Your task to perform on an android device: Open internet settings Image 0: 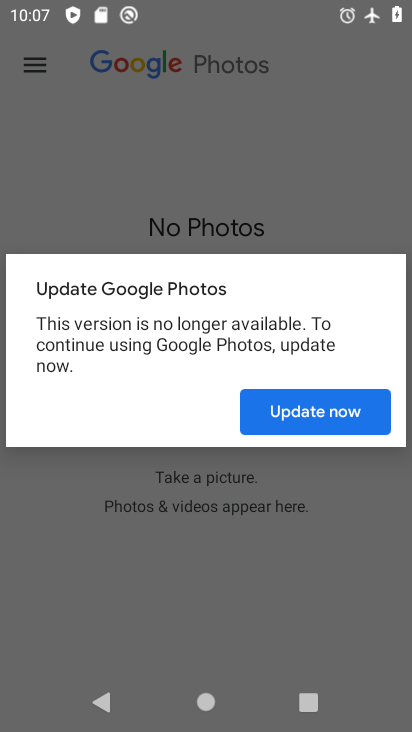
Step 0: press home button
Your task to perform on an android device: Open internet settings Image 1: 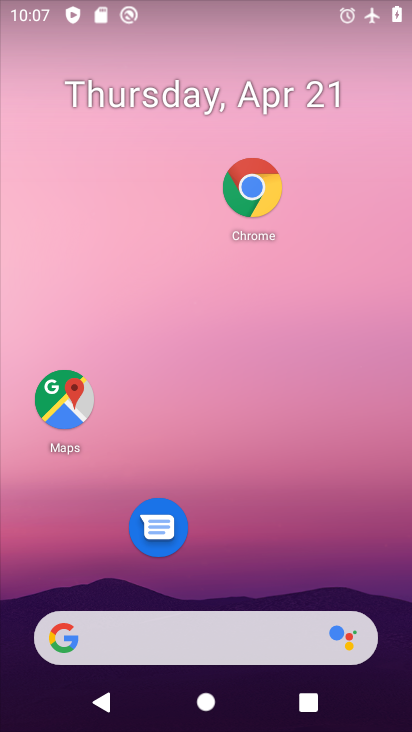
Step 1: drag from (260, 444) to (250, 64)
Your task to perform on an android device: Open internet settings Image 2: 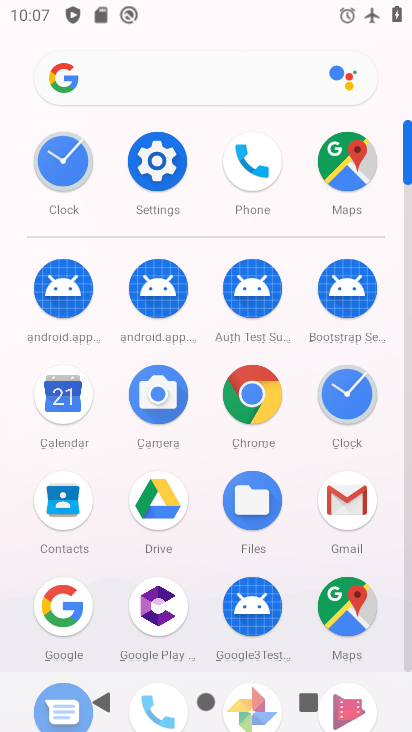
Step 2: click (150, 180)
Your task to perform on an android device: Open internet settings Image 3: 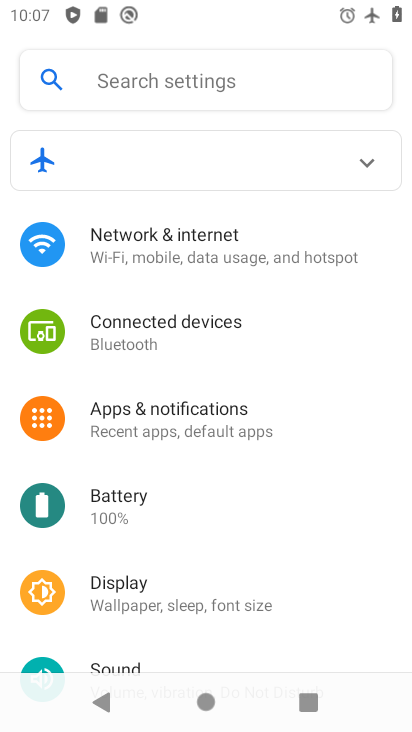
Step 3: click (244, 258)
Your task to perform on an android device: Open internet settings Image 4: 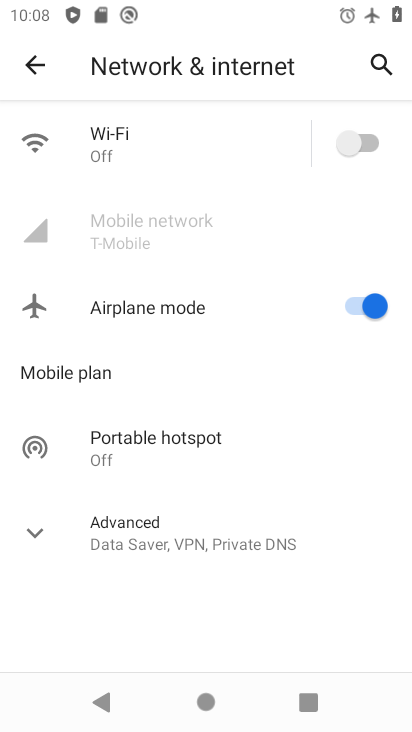
Step 4: task complete